Your task to perform on an android device: all mails in gmail Image 0: 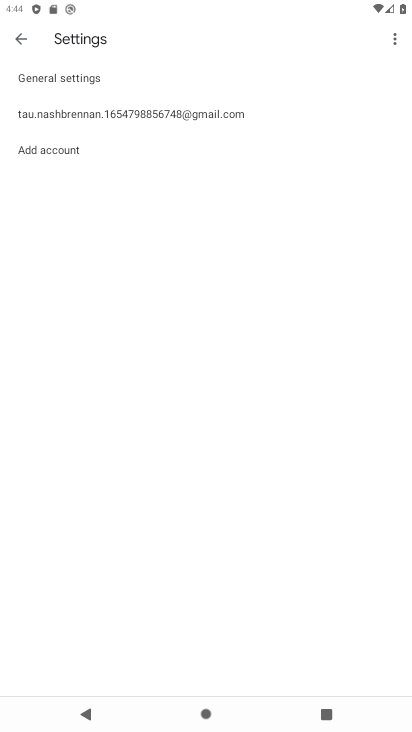
Step 0: press home button
Your task to perform on an android device: all mails in gmail Image 1: 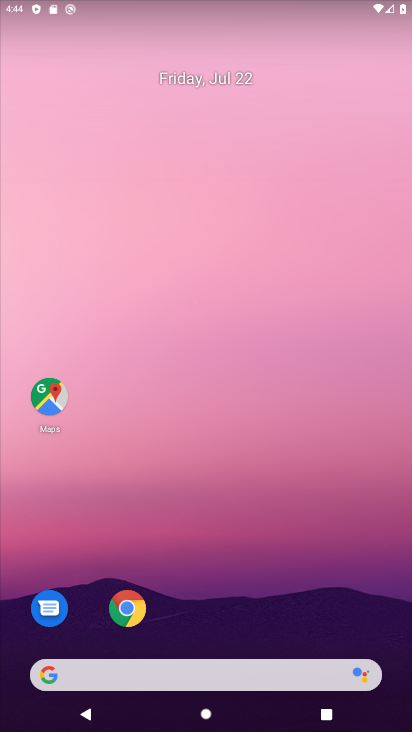
Step 1: drag from (163, 646) to (196, 62)
Your task to perform on an android device: all mails in gmail Image 2: 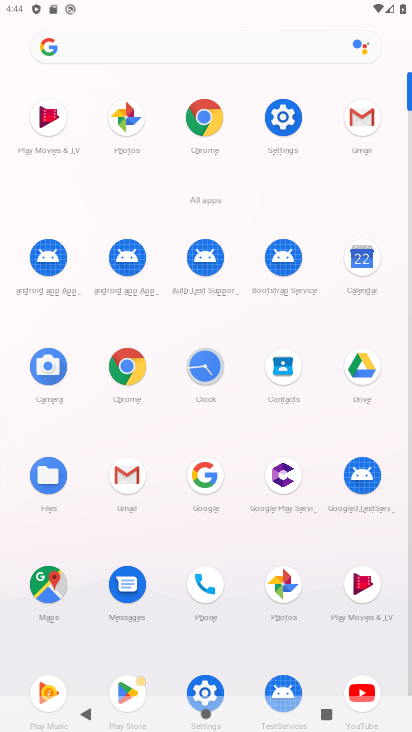
Step 2: click (368, 120)
Your task to perform on an android device: all mails in gmail Image 3: 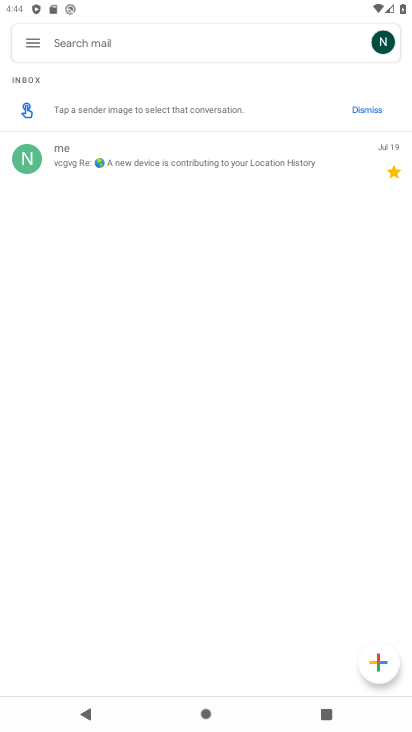
Step 3: click (33, 37)
Your task to perform on an android device: all mails in gmail Image 4: 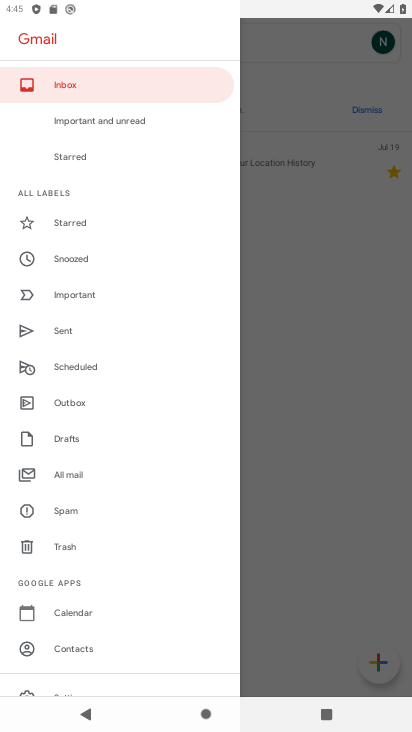
Step 4: click (95, 474)
Your task to perform on an android device: all mails in gmail Image 5: 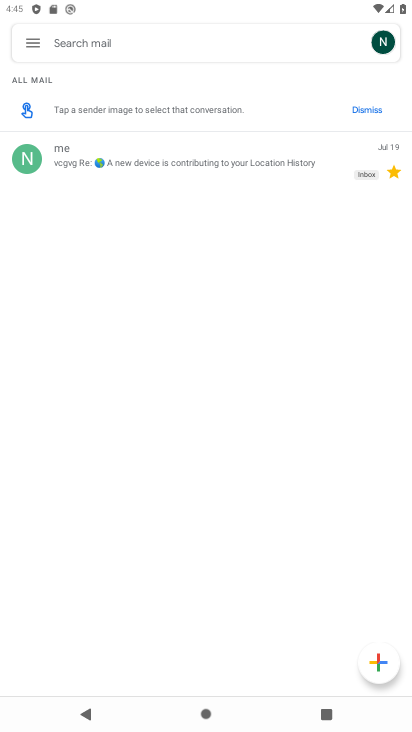
Step 5: task complete